Your task to perform on an android device: Go to notification settings Image 0: 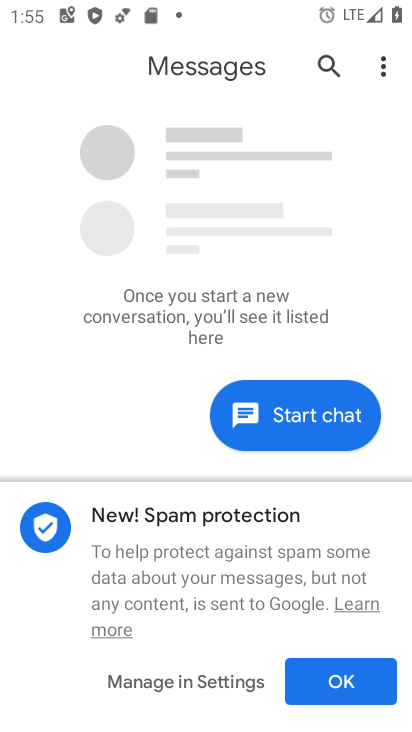
Step 0: press home button
Your task to perform on an android device: Go to notification settings Image 1: 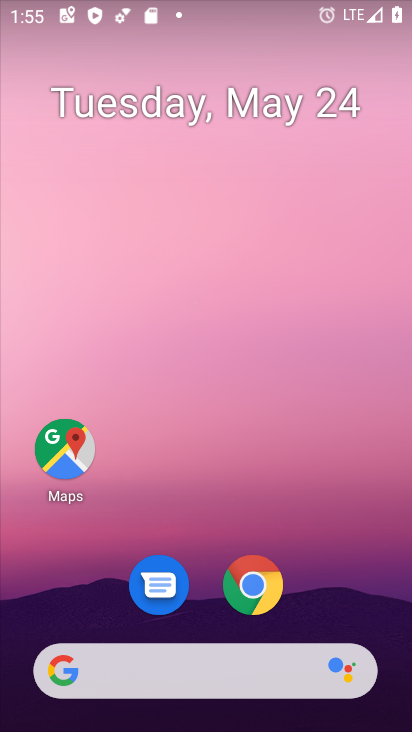
Step 1: drag from (325, 546) to (312, 32)
Your task to perform on an android device: Go to notification settings Image 2: 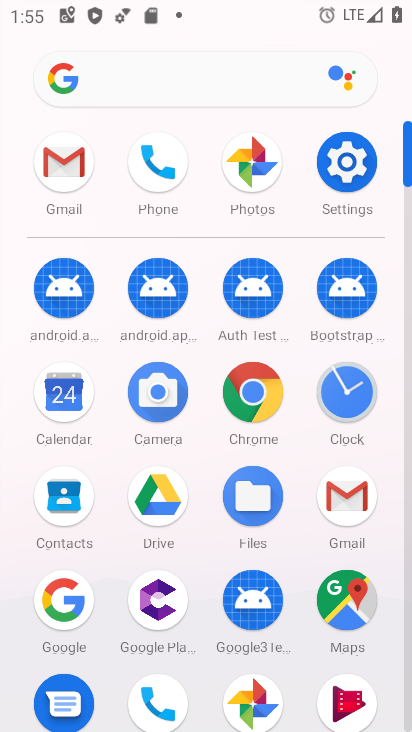
Step 2: click (358, 156)
Your task to perform on an android device: Go to notification settings Image 3: 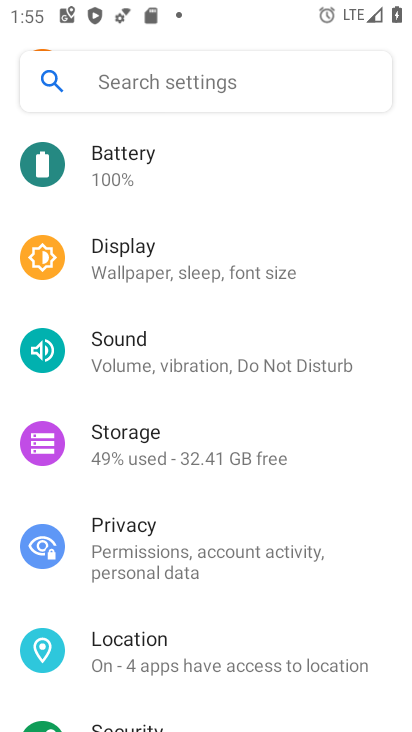
Step 3: task complete